Your task to perform on an android device: toggle javascript in the chrome app Image 0: 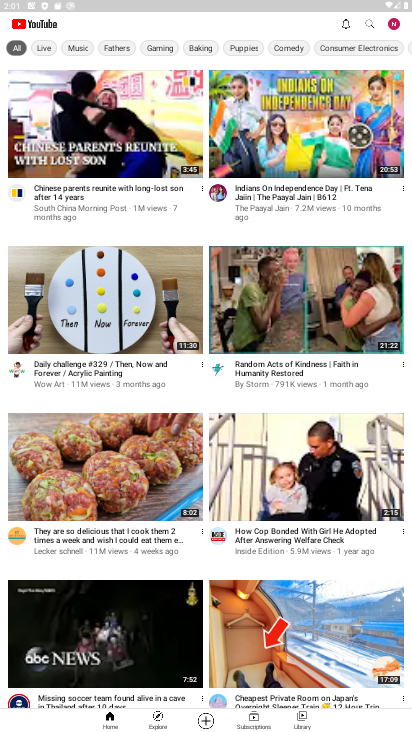
Step 0: press home button
Your task to perform on an android device: toggle javascript in the chrome app Image 1: 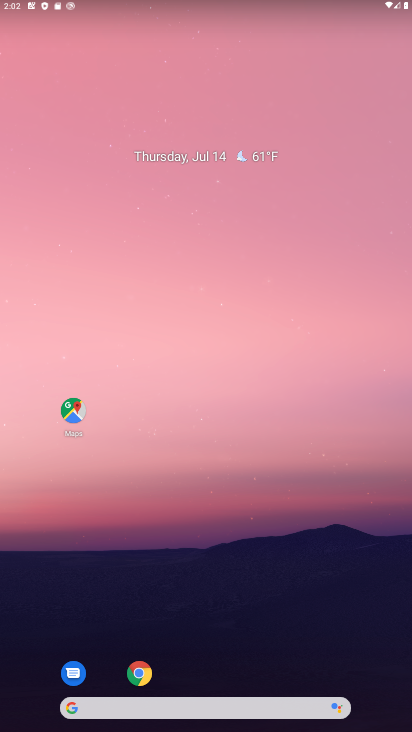
Step 1: click (134, 680)
Your task to perform on an android device: toggle javascript in the chrome app Image 2: 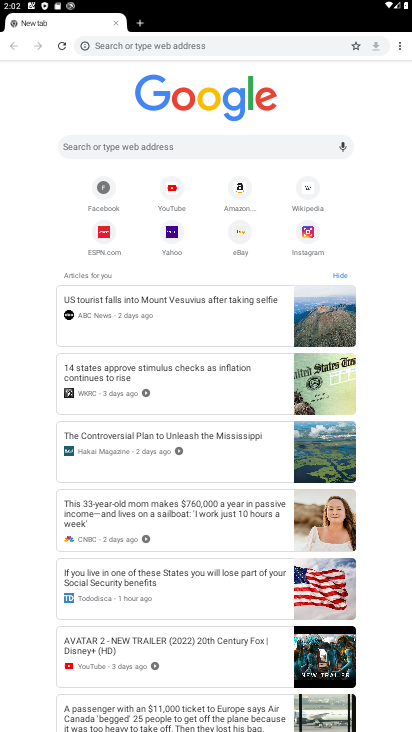
Step 2: click (401, 50)
Your task to perform on an android device: toggle javascript in the chrome app Image 3: 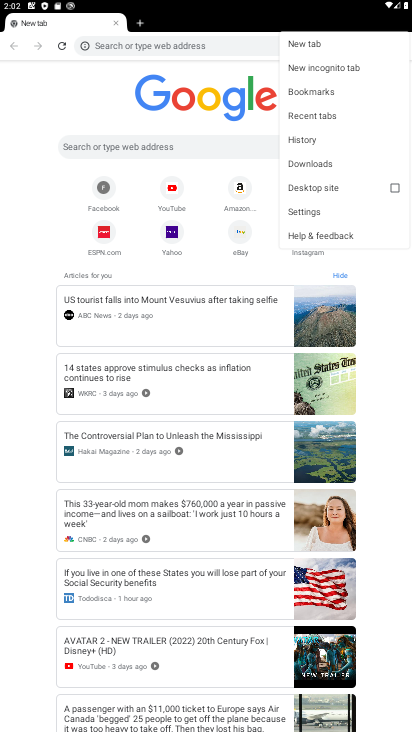
Step 3: click (323, 210)
Your task to perform on an android device: toggle javascript in the chrome app Image 4: 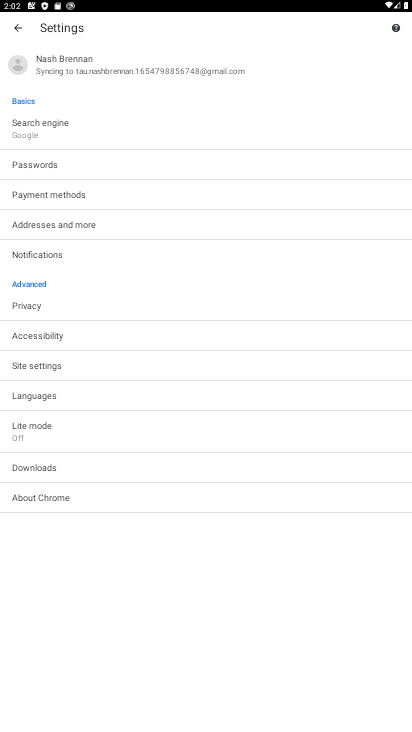
Step 4: click (45, 367)
Your task to perform on an android device: toggle javascript in the chrome app Image 5: 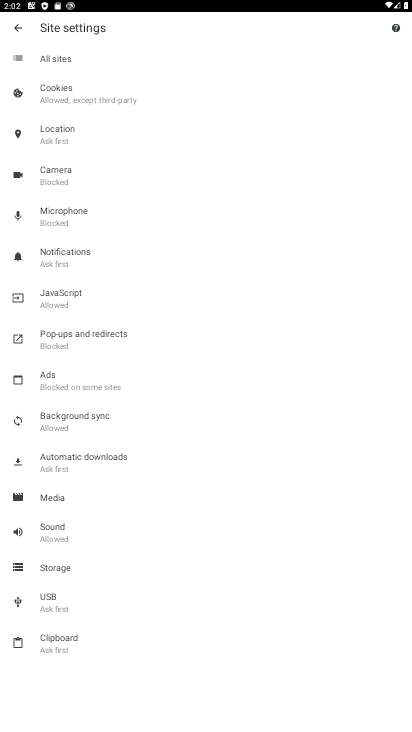
Step 5: click (81, 307)
Your task to perform on an android device: toggle javascript in the chrome app Image 6: 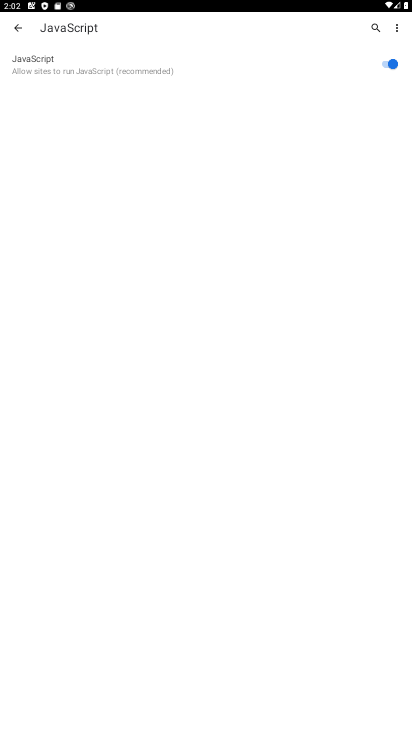
Step 6: task complete